Your task to perform on an android device: change keyboard looks Image 0: 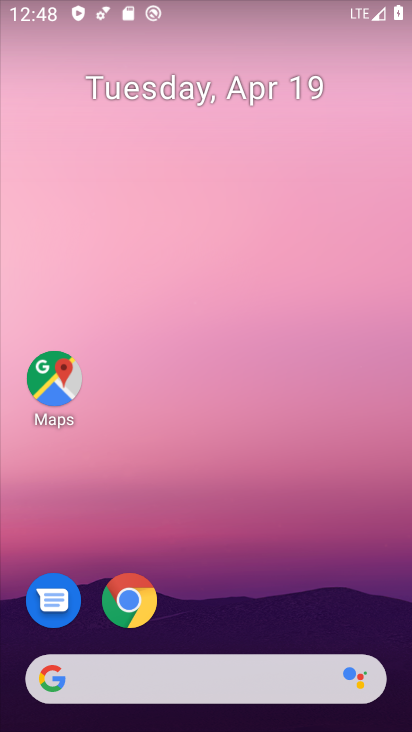
Step 0: drag from (220, 647) to (158, 2)
Your task to perform on an android device: change keyboard looks Image 1: 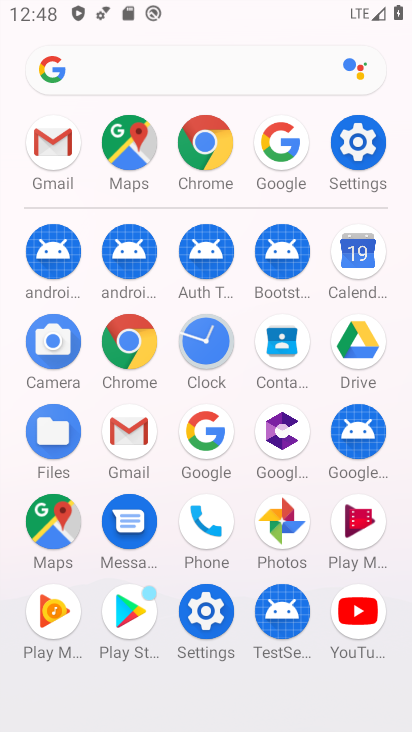
Step 1: click (341, 147)
Your task to perform on an android device: change keyboard looks Image 2: 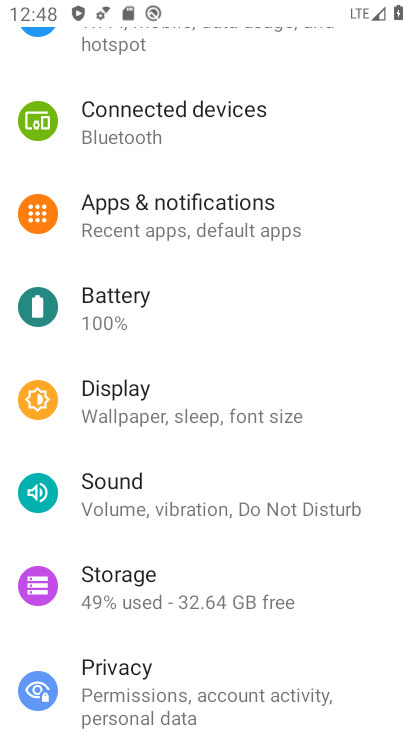
Step 2: drag from (257, 645) to (217, 69)
Your task to perform on an android device: change keyboard looks Image 3: 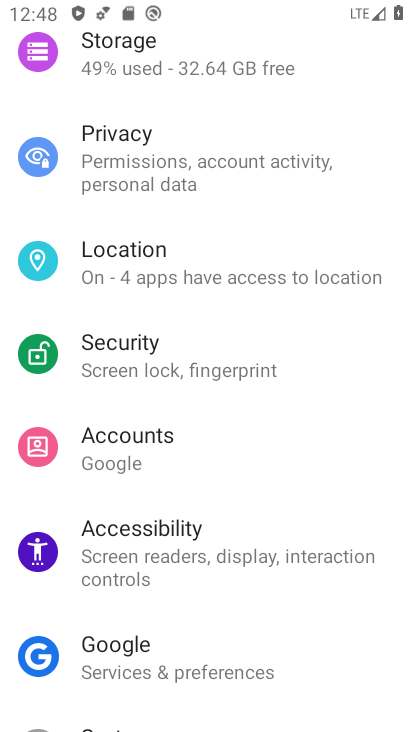
Step 3: drag from (184, 687) to (171, 111)
Your task to perform on an android device: change keyboard looks Image 4: 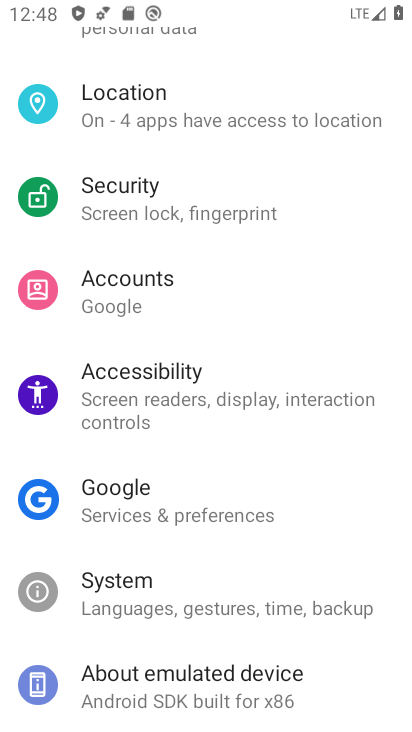
Step 4: click (109, 574)
Your task to perform on an android device: change keyboard looks Image 5: 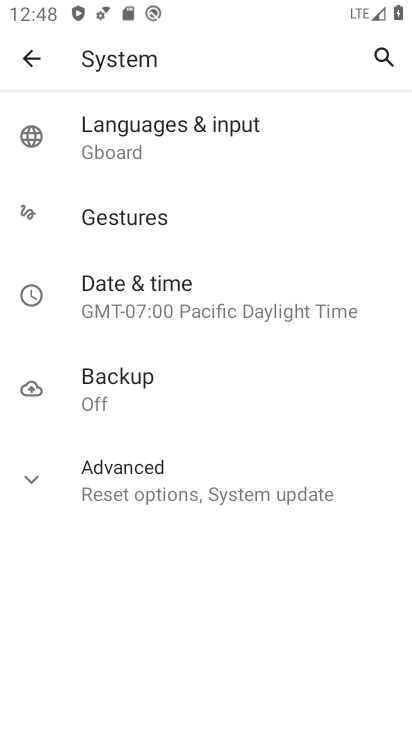
Step 5: click (182, 124)
Your task to perform on an android device: change keyboard looks Image 6: 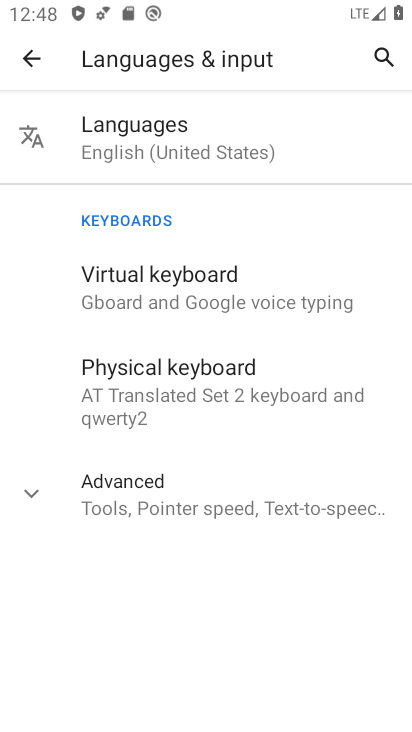
Step 6: click (151, 283)
Your task to perform on an android device: change keyboard looks Image 7: 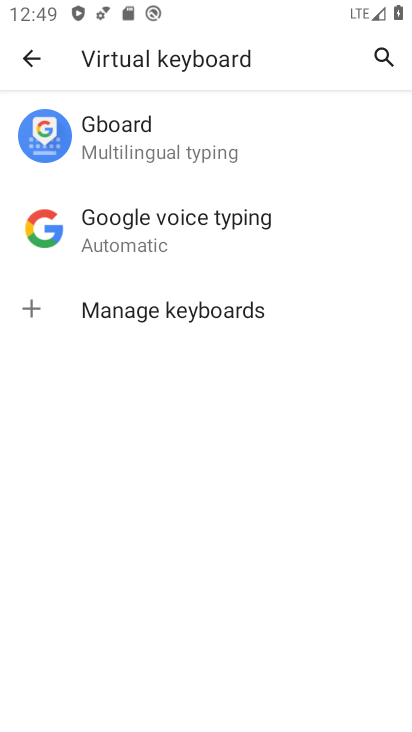
Step 7: click (142, 152)
Your task to perform on an android device: change keyboard looks Image 8: 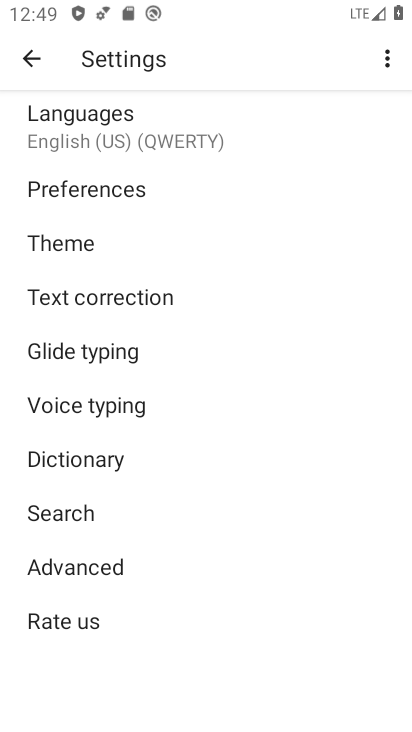
Step 8: click (104, 235)
Your task to perform on an android device: change keyboard looks Image 9: 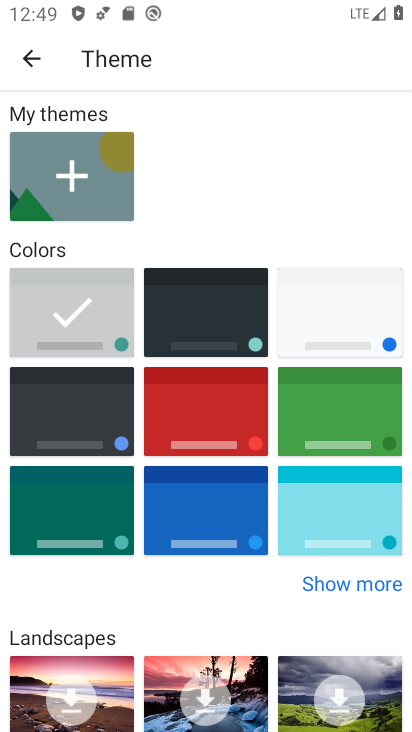
Step 9: click (210, 335)
Your task to perform on an android device: change keyboard looks Image 10: 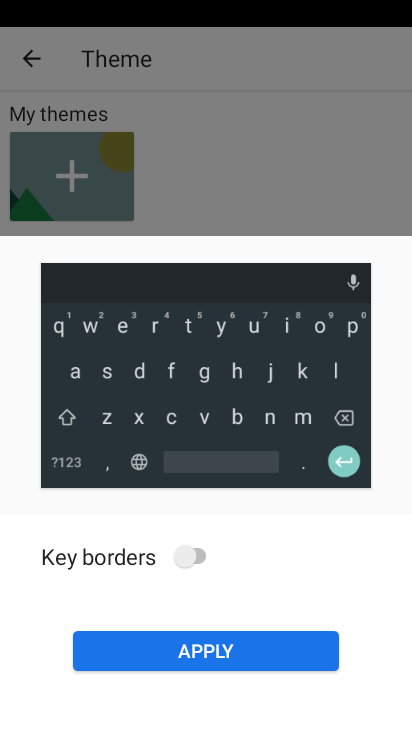
Step 10: click (245, 633)
Your task to perform on an android device: change keyboard looks Image 11: 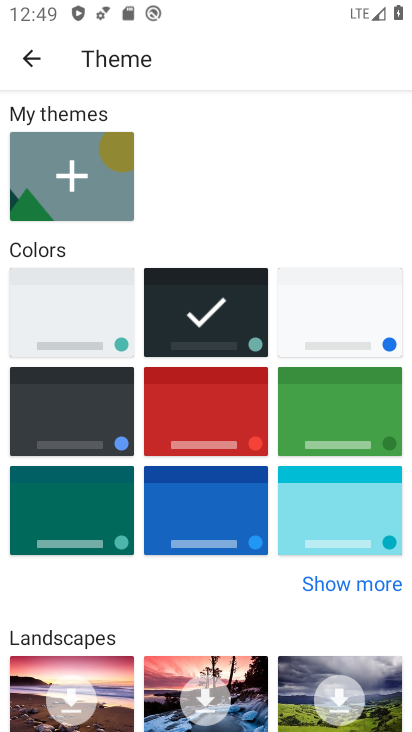
Step 11: task complete